Your task to perform on an android device: Open Android settings Image 0: 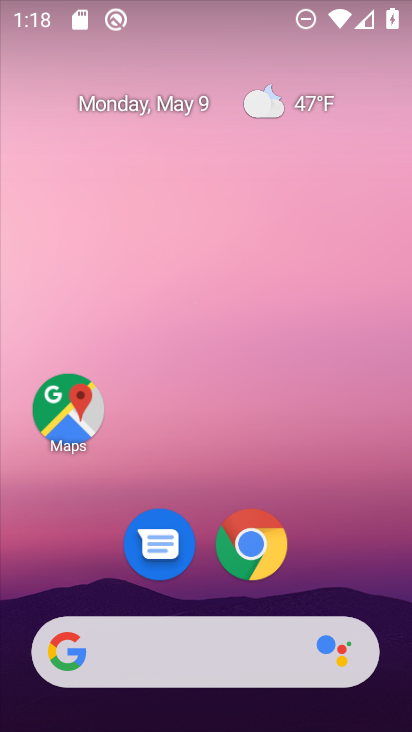
Step 0: drag from (380, 493) to (410, 73)
Your task to perform on an android device: Open Android settings Image 1: 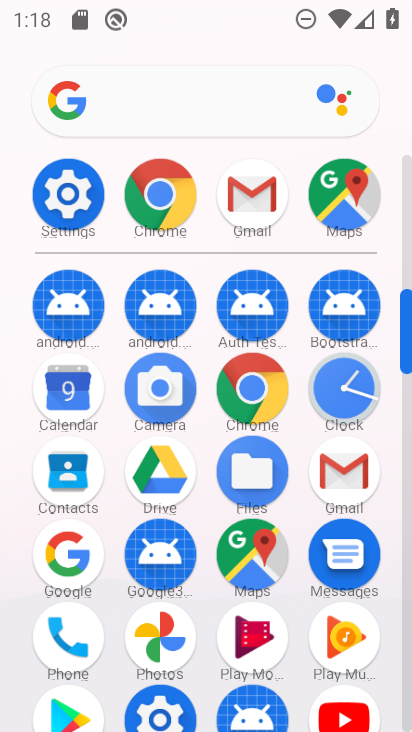
Step 1: click (65, 201)
Your task to perform on an android device: Open Android settings Image 2: 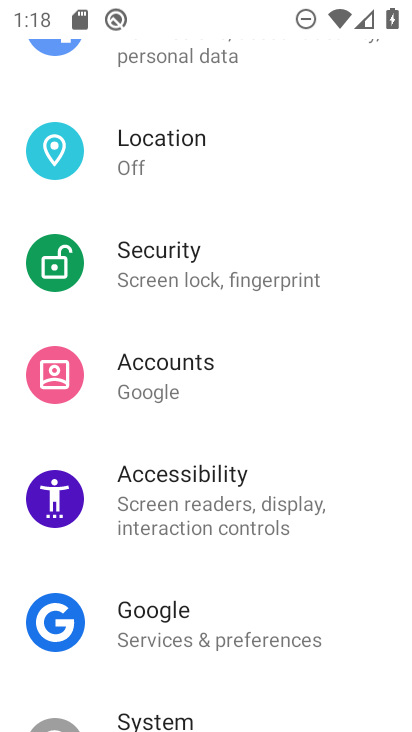
Step 2: drag from (155, 518) to (230, 106)
Your task to perform on an android device: Open Android settings Image 3: 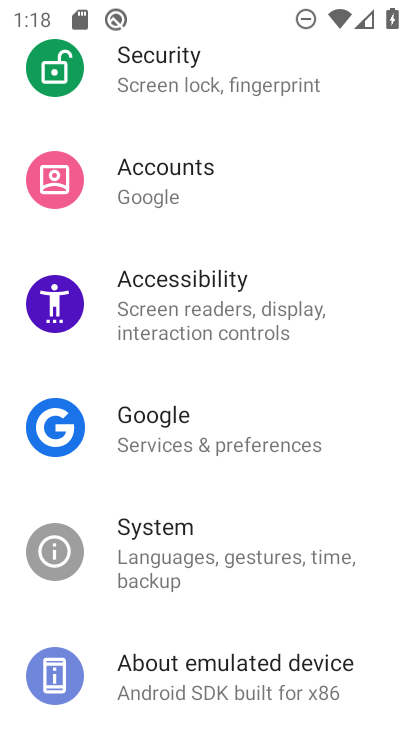
Step 3: drag from (151, 657) to (127, 276)
Your task to perform on an android device: Open Android settings Image 4: 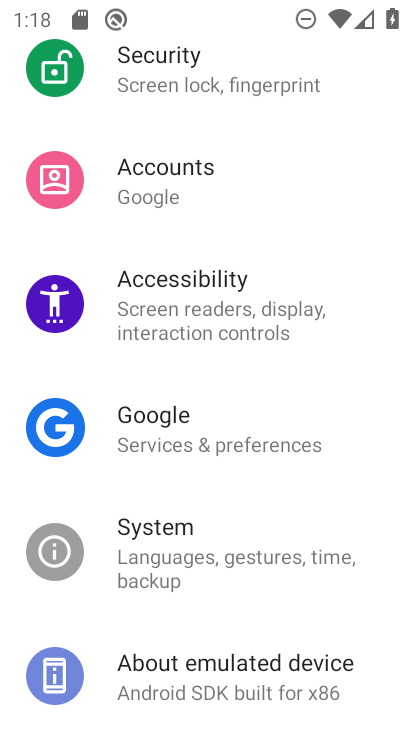
Step 4: drag from (153, 554) to (131, 120)
Your task to perform on an android device: Open Android settings Image 5: 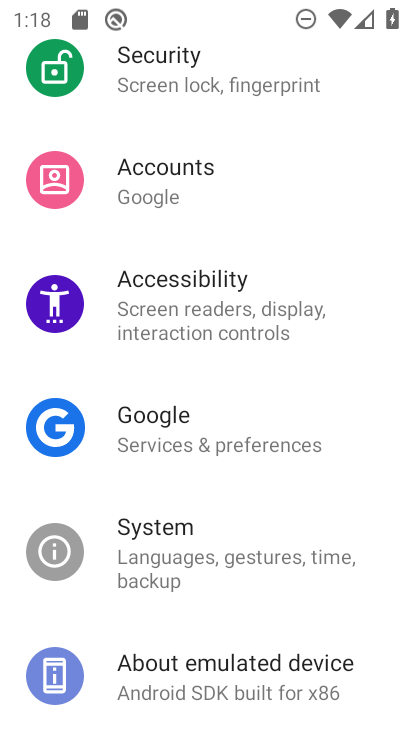
Step 5: click (183, 679)
Your task to perform on an android device: Open Android settings Image 6: 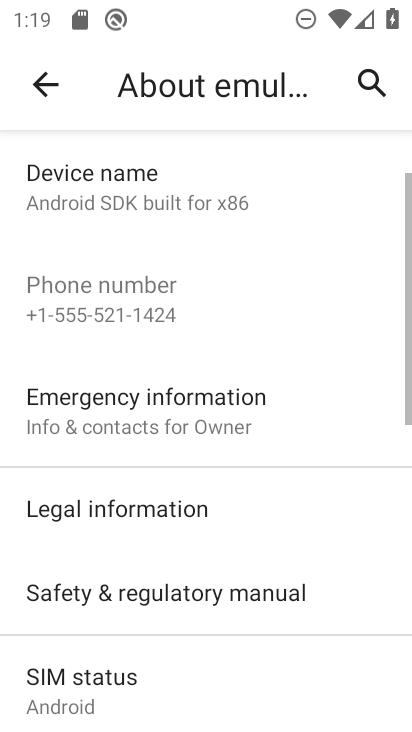
Step 6: task complete